Your task to perform on an android device: check data usage Image 0: 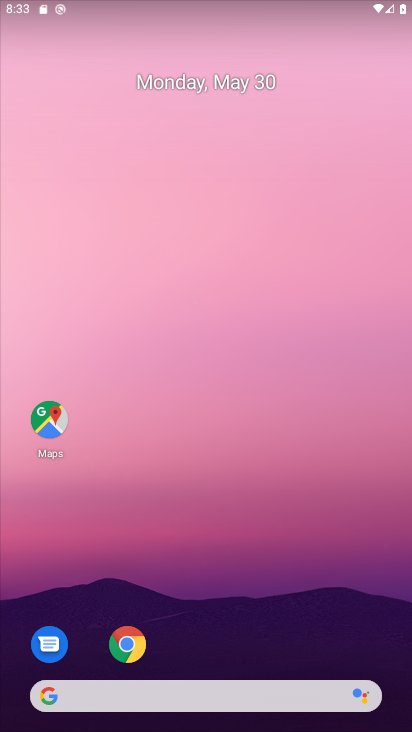
Step 0: drag from (288, 537) to (278, 11)
Your task to perform on an android device: check data usage Image 1: 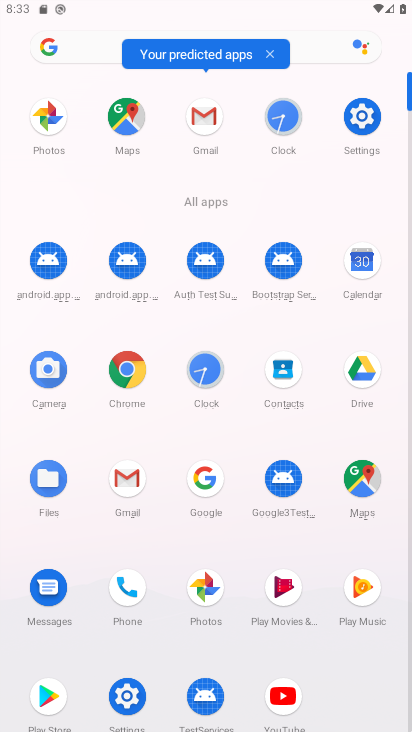
Step 1: click (370, 109)
Your task to perform on an android device: check data usage Image 2: 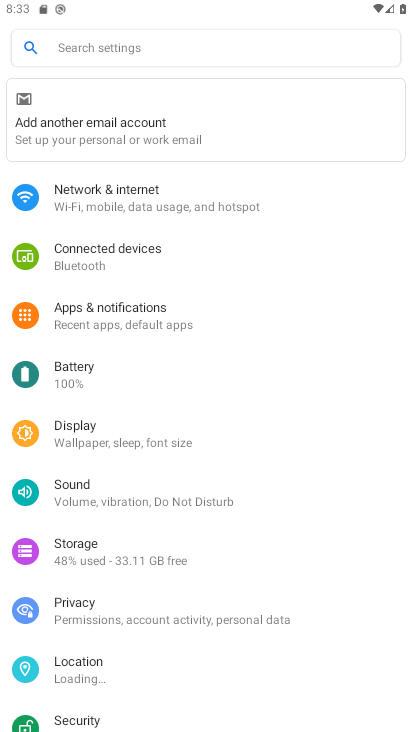
Step 2: drag from (232, 273) to (160, 597)
Your task to perform on an android device: check data usage Image 3: 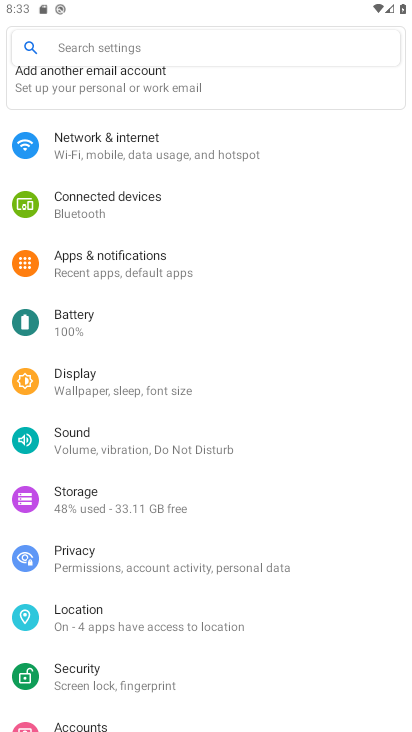
Step 3: click (141, 140)
Your task to perform on an android device: check data usage Image 4: 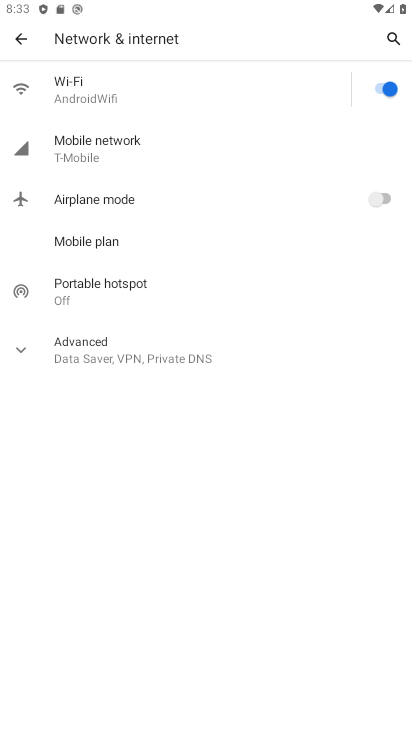
Step 4: click (163, 138)
Your task to perform on an android device: check data usage Image 5: 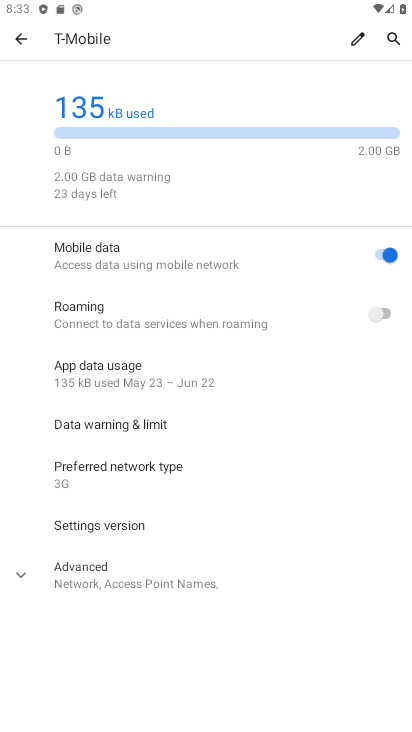
Step 5: click (131, 356)
Your task to perform on an android device: check data usage Image 6: 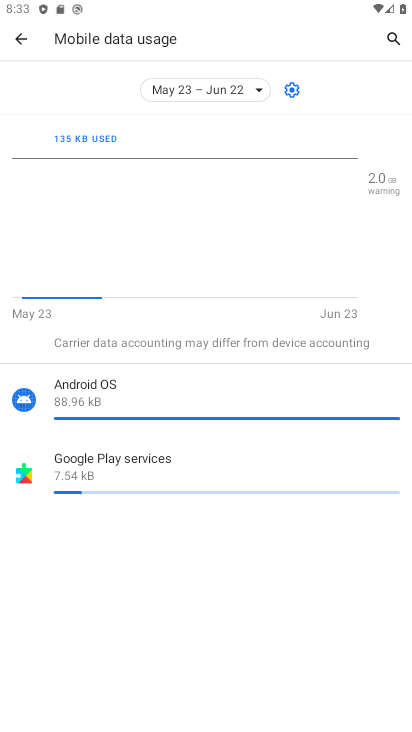
Step 6: task complete